Your task to perform on an android device: change the clock display to analog Image 0: 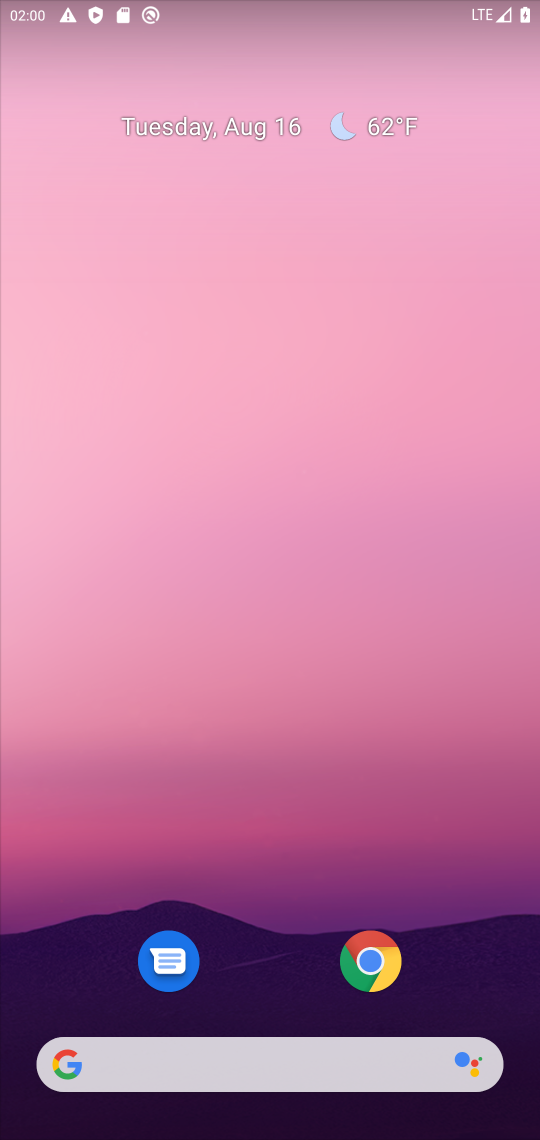
Step 0: drag from (284, 914) to (329, 122)
Your task to perform on an android device: change the clock display to analog Image 1: 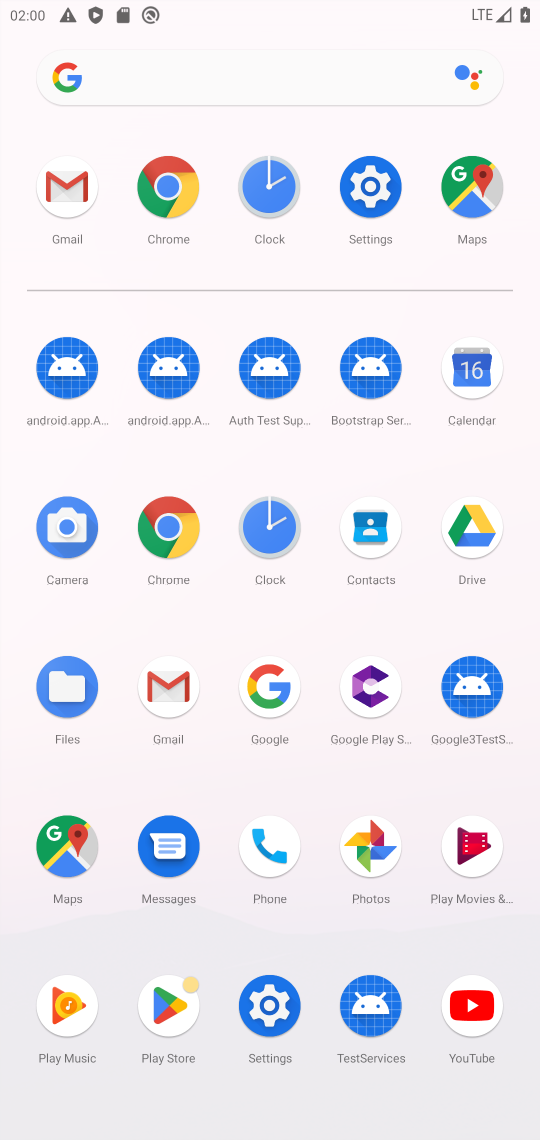
Step 1: click (259, 554)
Your task to perform on an android device: change the clock display to analog Image 2: 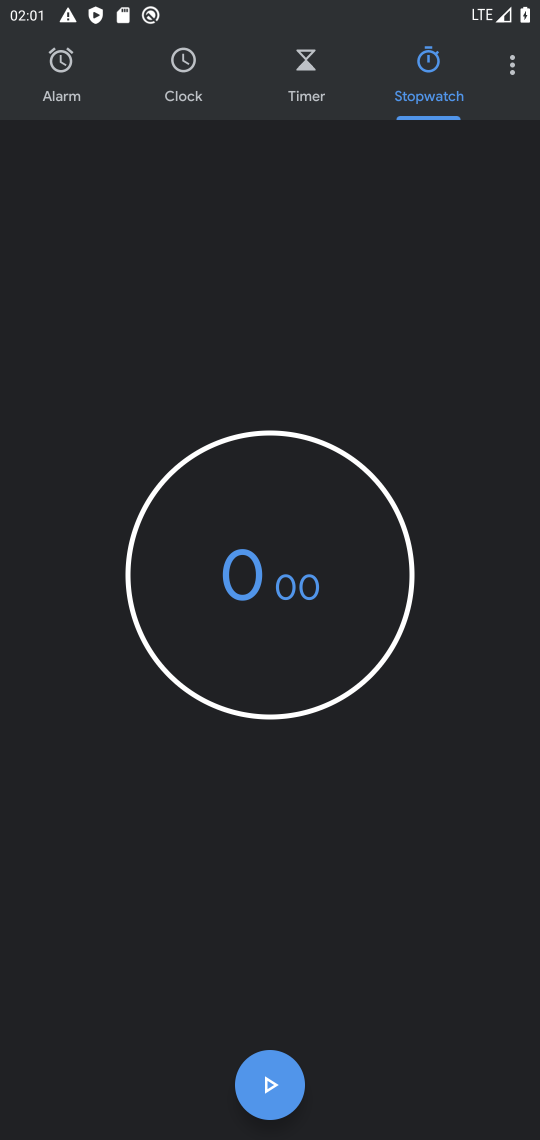
Step 2: click (517, 60)
Your task to perform on an android device: change the clock display to analog Image 3: 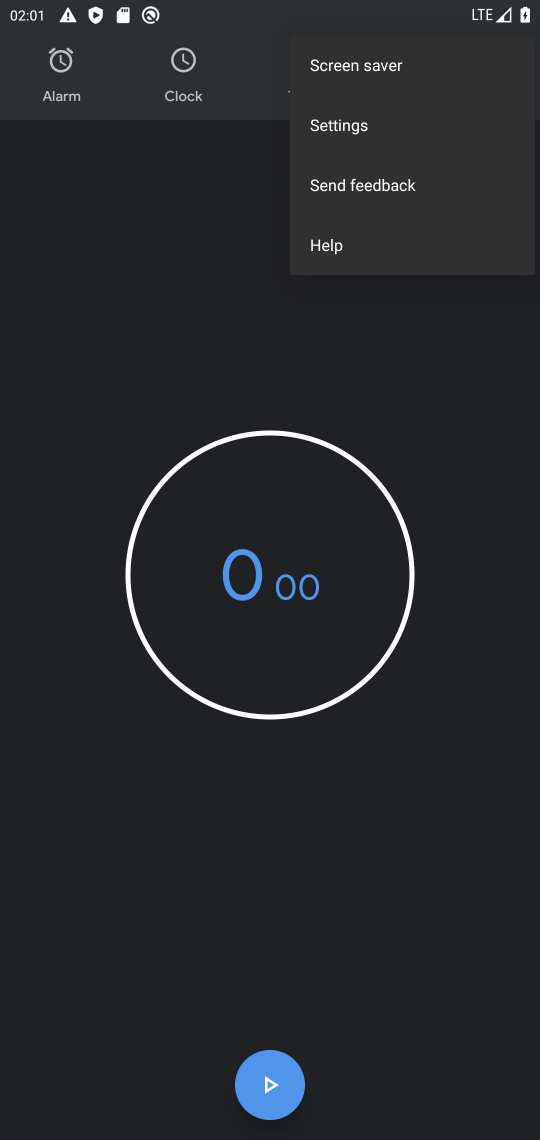
Step 3: click (359, 121)
Your task to perform on an android device: change the clock display to analog Image 4: 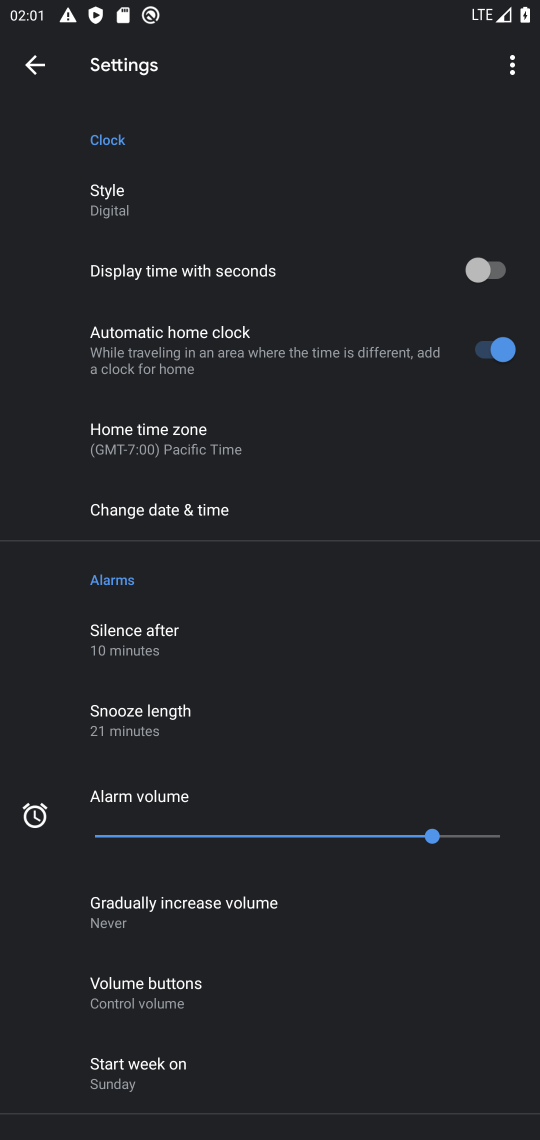
Step 4: click (172, 195)
Your task to perform on an android device: change the clock display to analog Image 5: 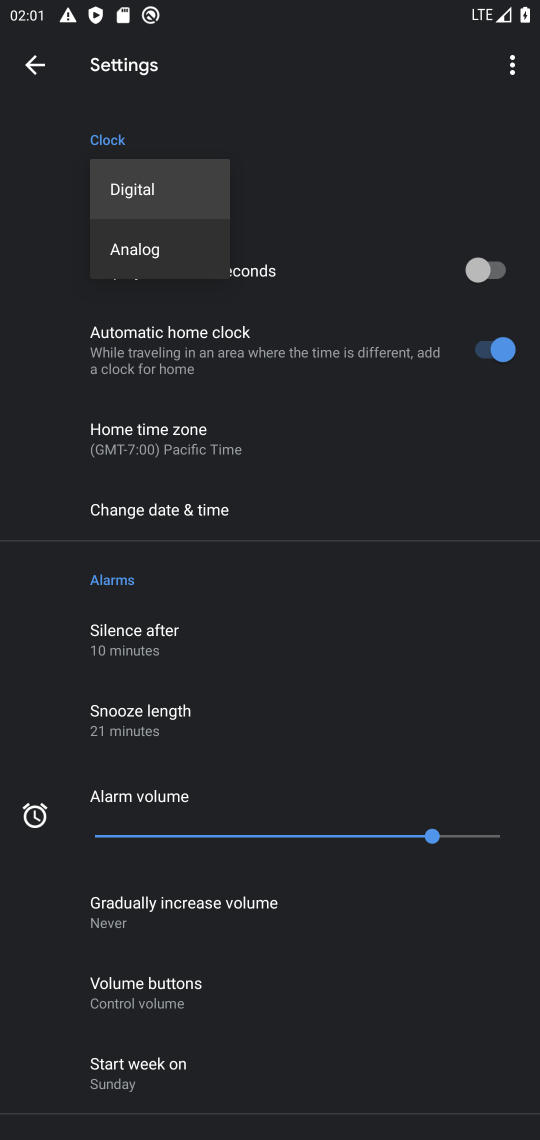
Step 5: click (164, 259)
Your task to perform on an android device: change the clock display to analog Image 6: 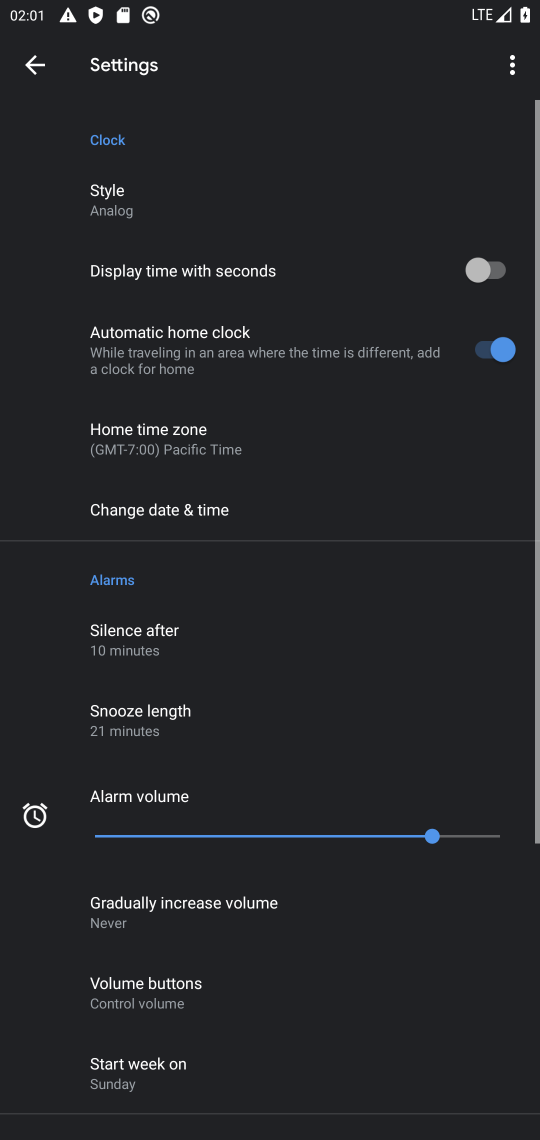
Step 6: task complete